Your task to perform on an android device: turn off improve location accuracy Image 0: 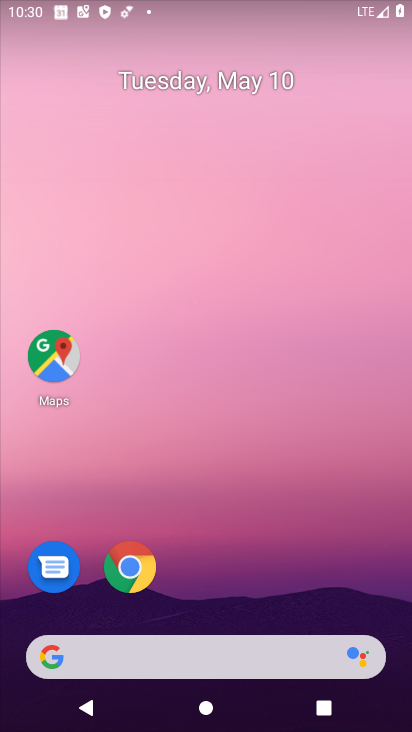
Step 0: press home button
Your task to perform on an android device: turn off improve location accuracy Image 1: 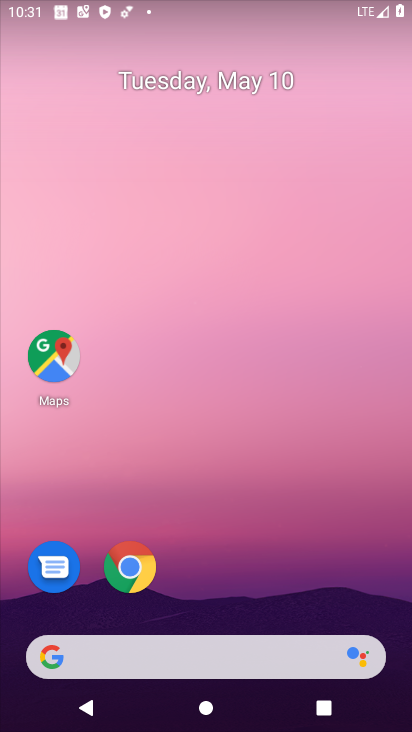
Step 1: drag from (26, 661) to (333, 123)
Your task to perform on an android device: turn off improve location accuracy Image 2: 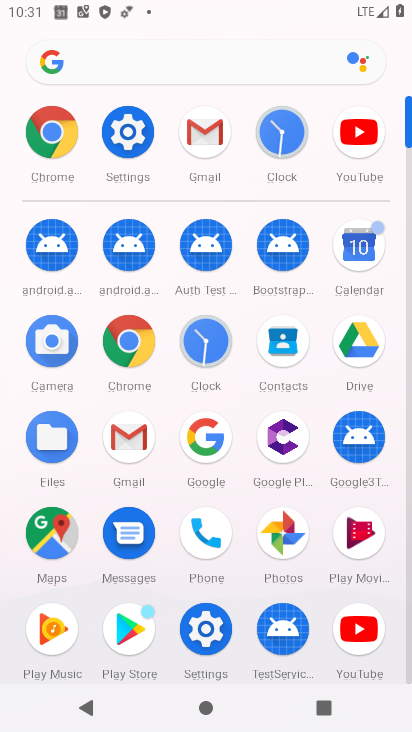
Step 2: click (126, 128)
Your task to perform on an android device: turn off improve location accuracy Image 3: 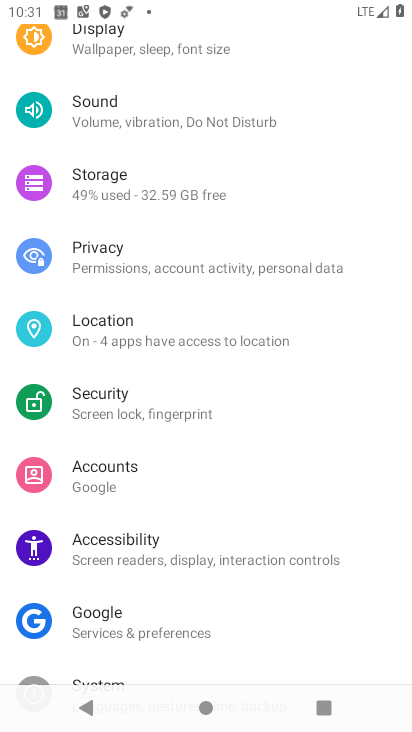
Step 3: click (138, 329)
Your task to perform on an android device: turn off improve location accuracy Image 4: 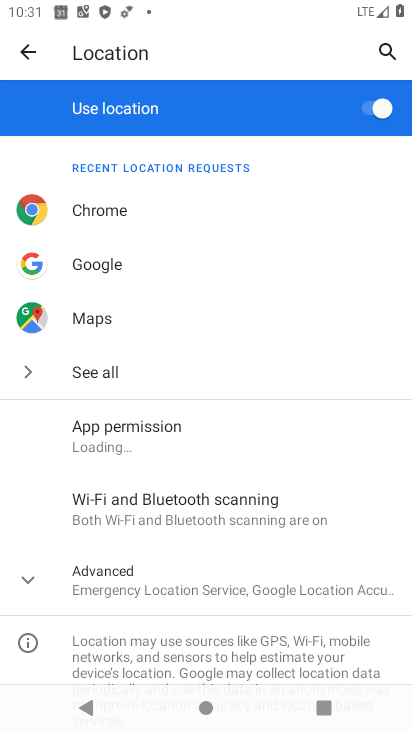
Step 4: click (183, 586)
Your task to perform on an android device: turn off improve location accuracy Image 5: 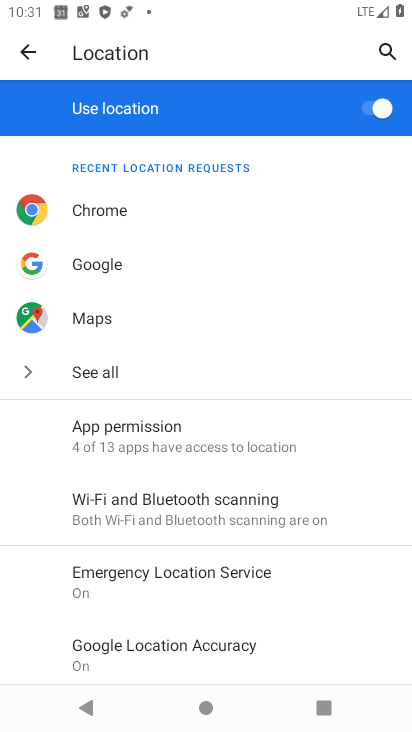
Step 5: click (189, 649)
Your task to perform on an android device: turn off improve location accuracy Image 6: 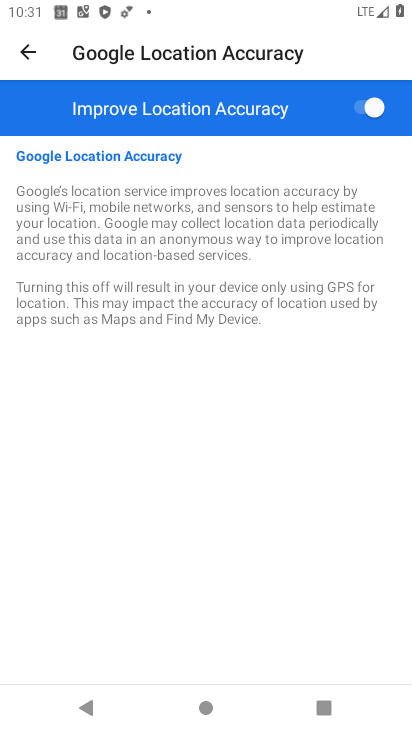
Step 6: click (380, 107)
Your task to perform on an android device: turn off improve location accuracy Image 7: 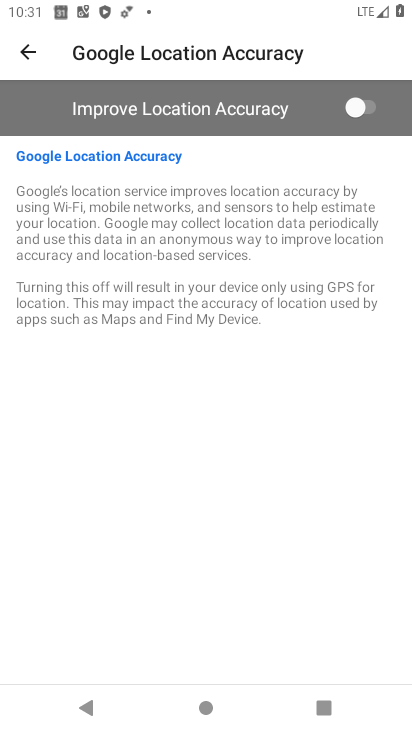
Step 7: task complete